Your task to perform on an android device: Open calendar and show me the second week of next month Image 0: 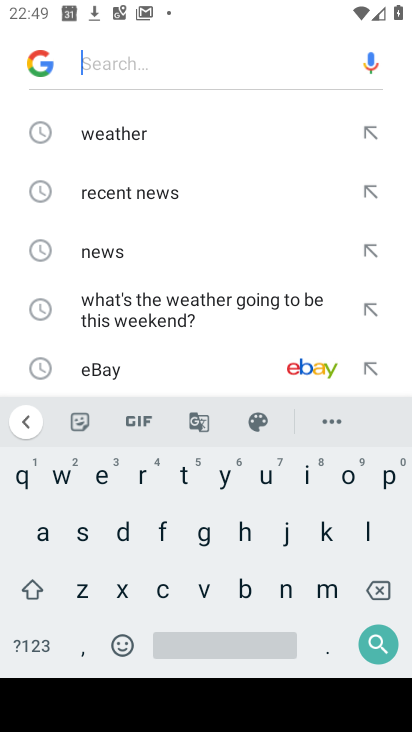
Step 0: press home button
Your task to perform on an android device: Open calendar and show me the second week of next month Image 1: 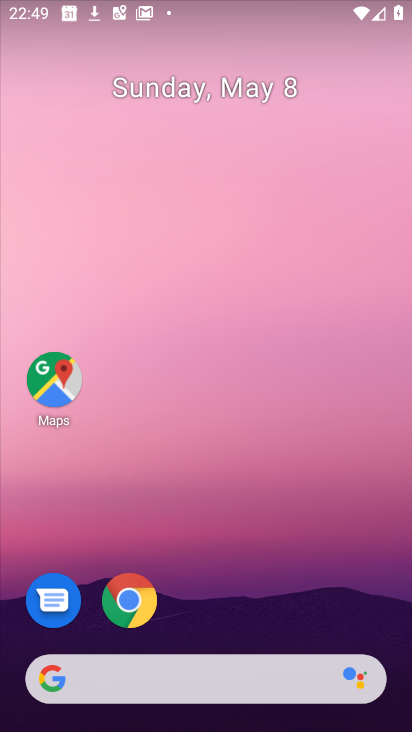
Step 1: drag from (297, 713) to (304, 267)
Your task to perform on an android device: Open calendar and show me the second week of next month Image 2: 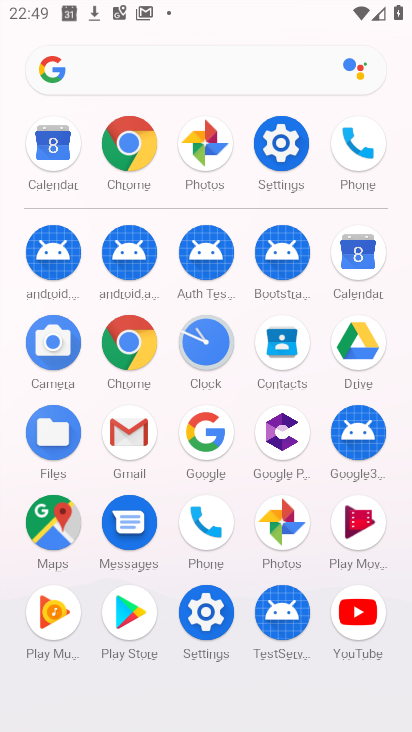
Step 2: click (350, 249)
Your task to perform on an android device: Open calendar and show me the second week of next month Image 3: 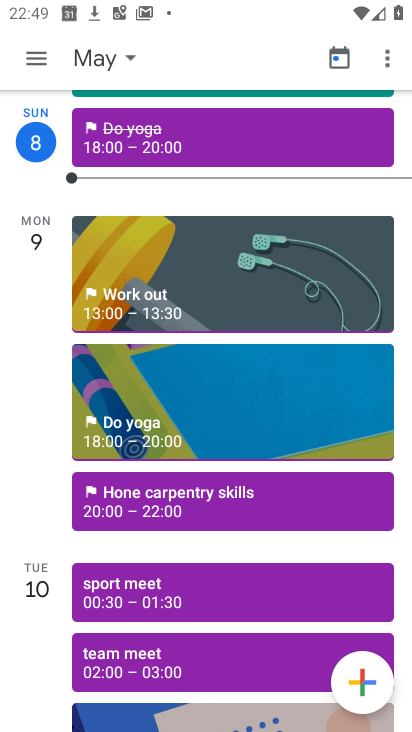
Step 3: click (26, 66)
Your task to perform on an android device: Open calendar and show me the second week of next month Image 4: 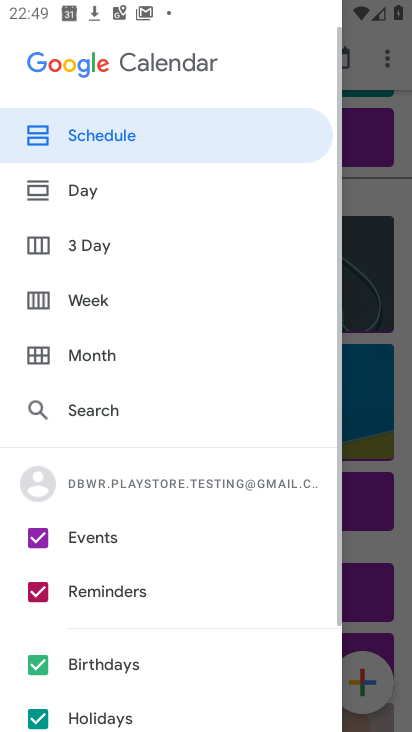
Step 4: click (98, 354)
Your task to perform on an android device: Open calendar and show me the second week of next month Image 5: 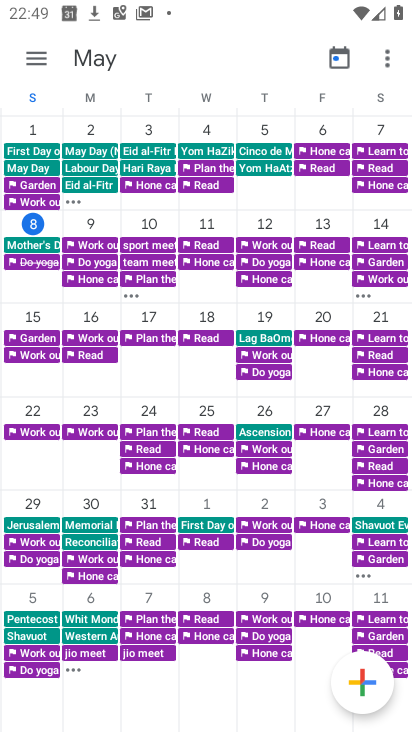
Step 5: drag from (393, 394) to (0, 412)
Your task to perform on an android device: Open calendar and show me the second week of next month Image 6: 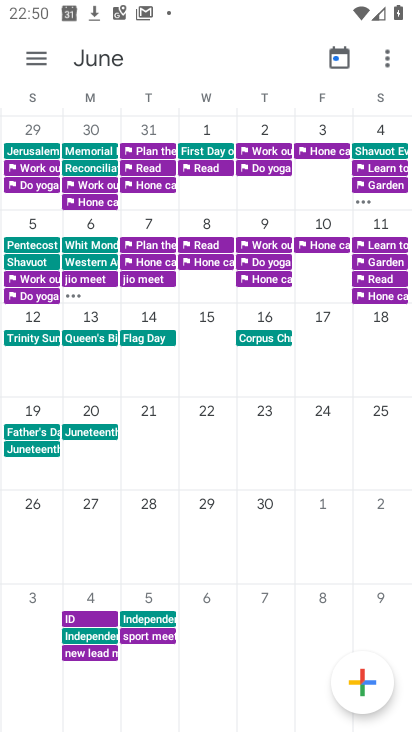
Step 6: click (84, 241)
Your task to perform on an android device: Open calendar and show me the second week of next month Image 7: 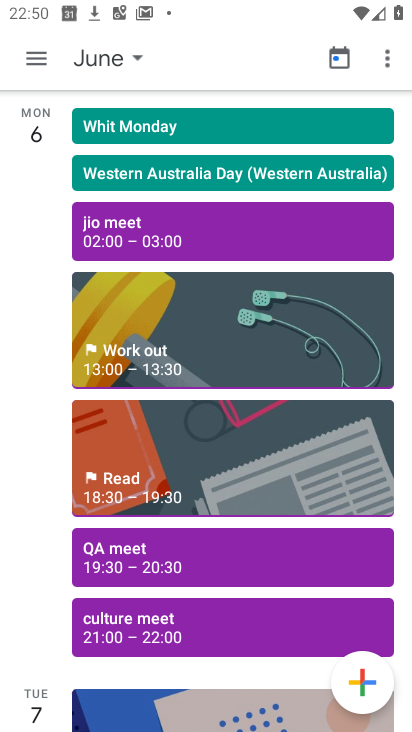
Step 7: task complete